Your task to perform on an android device: Open Google Maps and go to "Timeline" Image 0: 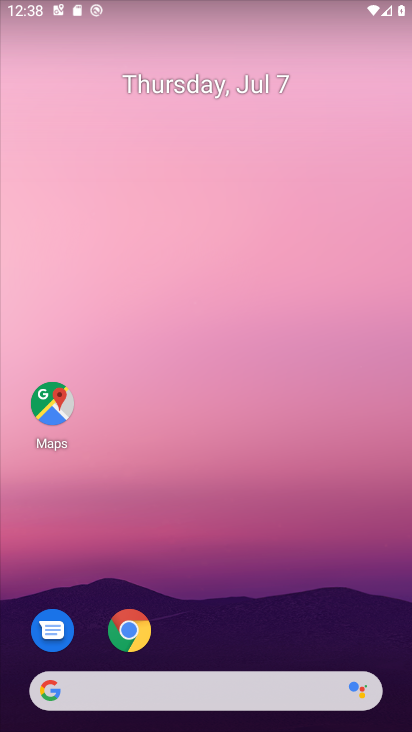
Step 0: drag from (75, 579) to (116, 342)
Your task to perform on an android device: Open Google Maps and go to "Timeline" Image 1: 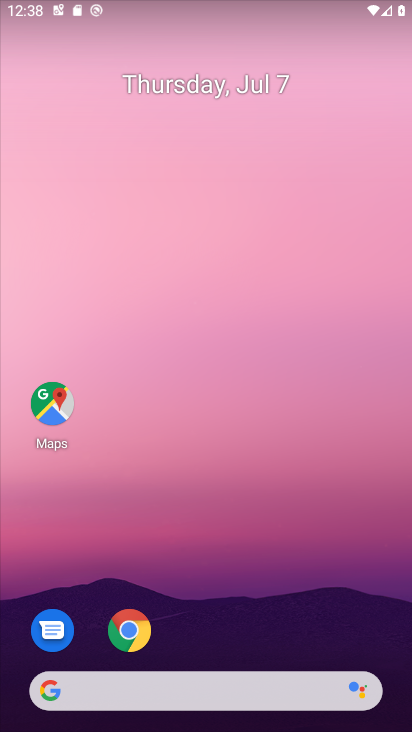
Step 1: click (56, 408)
Your task to perform on an android device: Open Google Maps and go to "Timeline" Image 2: 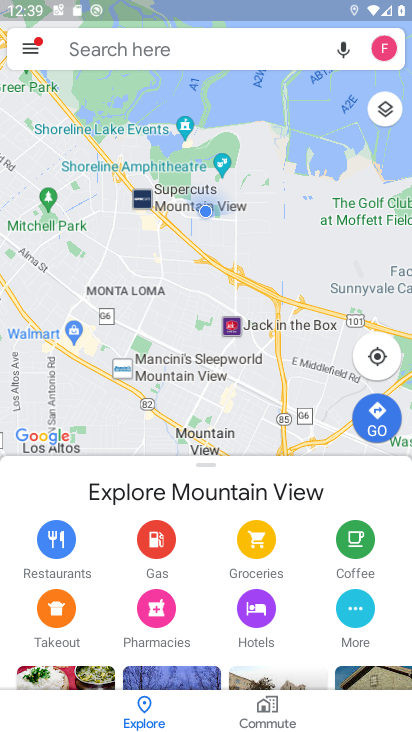
Step 2: click (18, 41)
Your task to perform on an android device: Open Google Maps and go to "Timeline" Image 3: 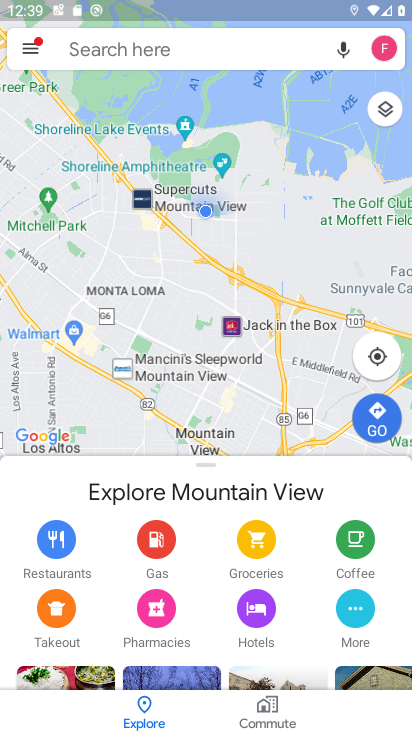
Step 3: click (29, 42)
Your task to perform on an android device: Open Google Maps and go to "Timeline" Image 4: 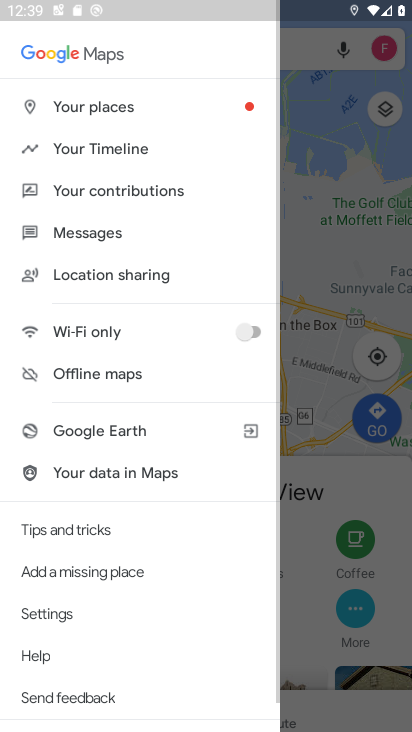
Step 4: click (87, 148)
Your task to perform on an android device: Open Google Maps and go to "Timeline" Image 5: 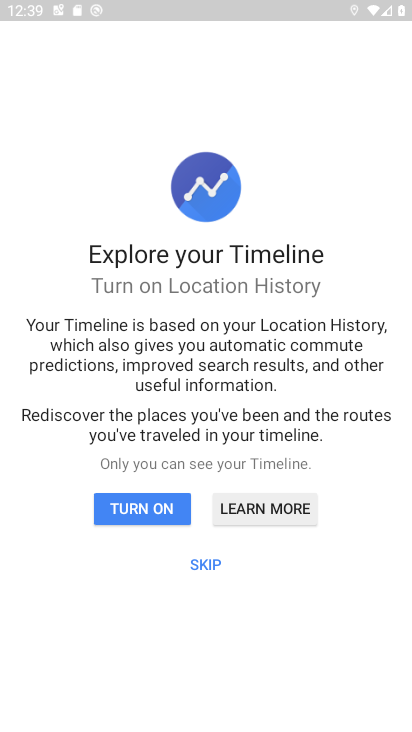
Step 5: click (221, 550)
Your task to perform on an android device: Open Google Maps and go to "Timeline" Image 6: 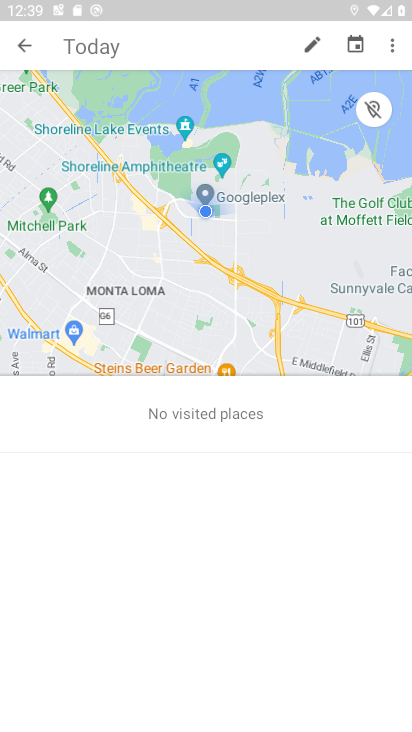
Step 6: click (216, 558)
Your task to perform on an android device: Open Google Maps and go to "Timeline" Image 7: 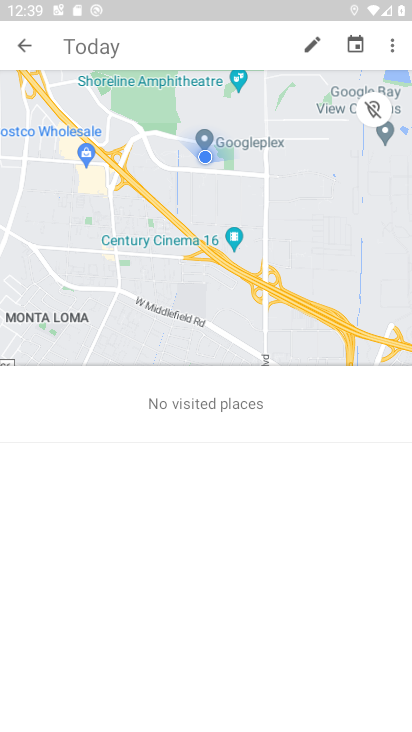
Step 7: task complete